Your task to perform on an android device: change the upload size in google photos Image 0: 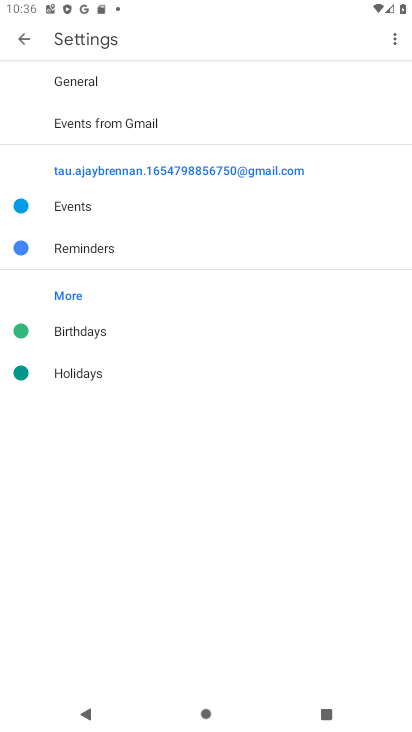
Step 0: press home button
Your task to perform on an android device: change the upload size in google photos Image 1: 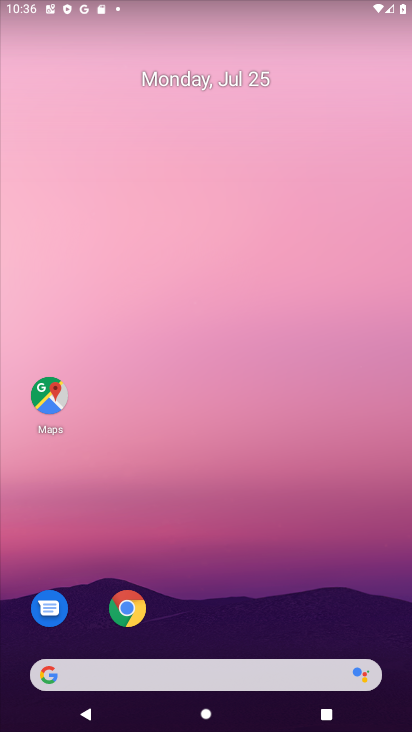
Step 1: drag from (226, 635) to (209, 98)
Your task to perform on an android device: change the upload size in google photos Image 2: 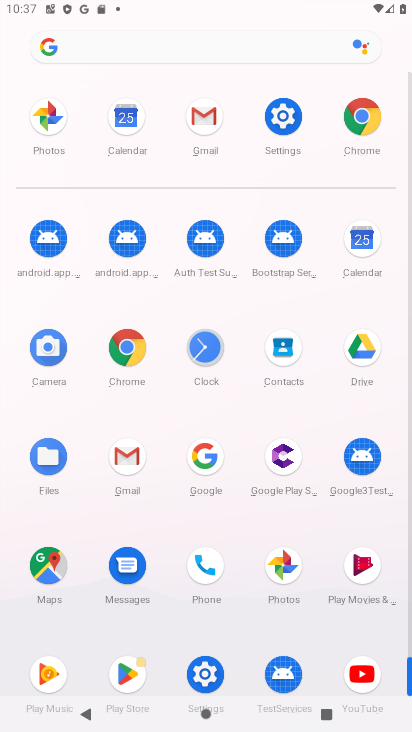
Step 2: click (287, 577)
Your task to perform on an android device: change the upload size in google photos Image 3: 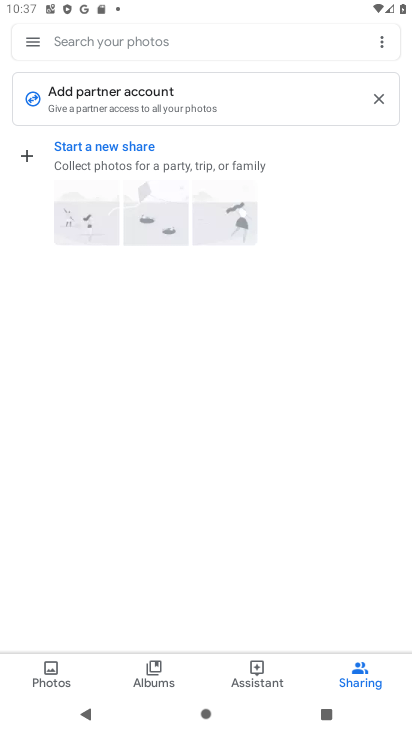
Step 3: click (44, 39)
Your task to perform on an android device: change the upload size in google photos Image 4: 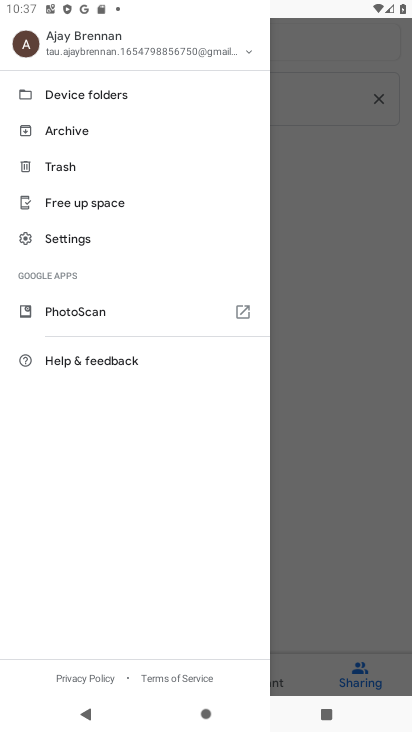
Step 4: click (68, 236)
Your task to perform on an android device: change the upload size in google photos Image 5: 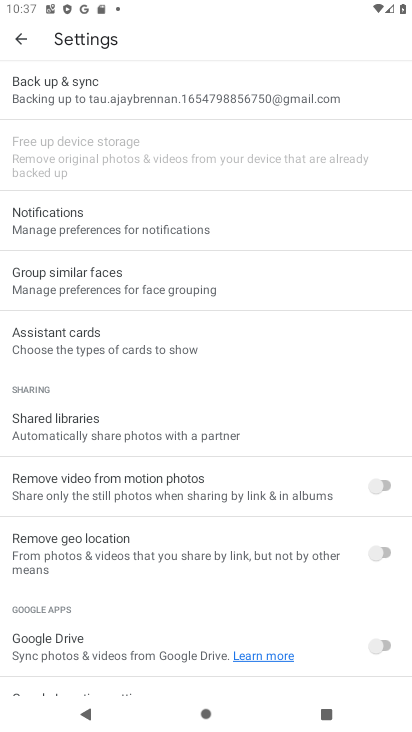
Step 5: click (100, 95)
Your task to perform on an android device: change the upload size in google photos Image 6: 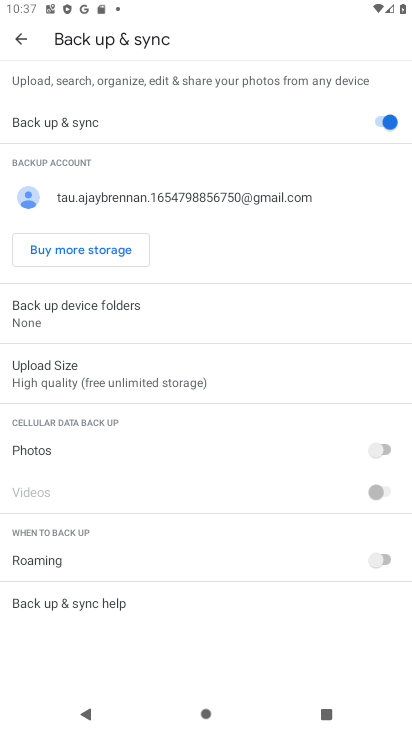
Step 6: click (70, 379)
Your task to perform on an android device: change the upload size in google photos Image 7: 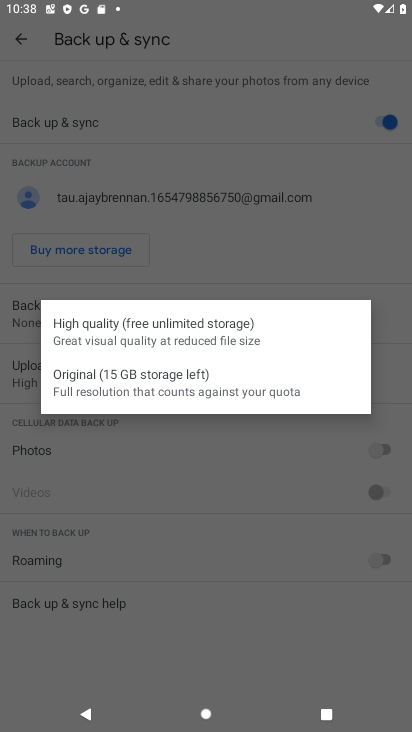
Step 7: click (146, 386)
Your task to perform on an android device: change the upload size in google photos Image 8: 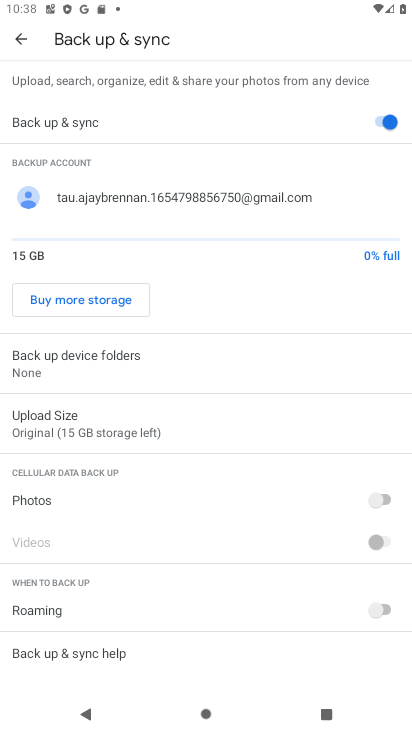
Step 8: task complete